Your task to perform on an android device: turn off priority inbox in the gmail app Image 0: 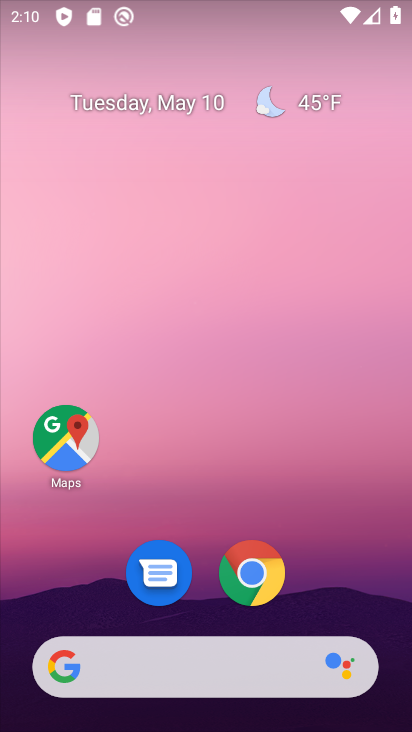
Step 0: drag from (201, 616) to (247, 225)
Your task to perform on an android device: turn off priority inbox in the gmail app Image 1: 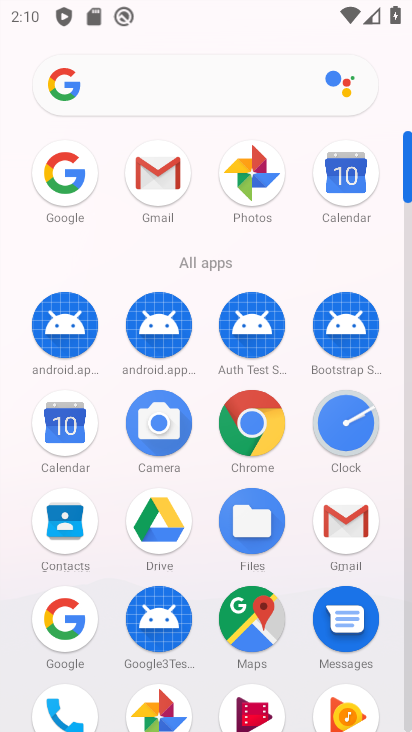
Step 1: click (148, 180)
Your task to perform on an android device: turn off priority inbox in the gmail app Image 2: 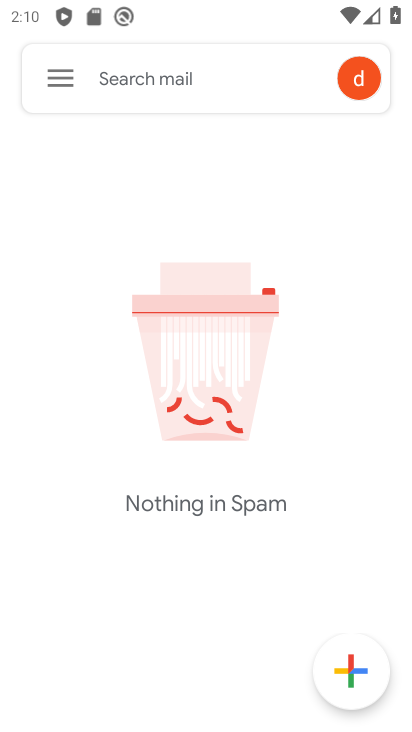
Step 2: click (65, 87)
Your task to perform on an android device: turn off priority inbox in the gmail app Image 3: 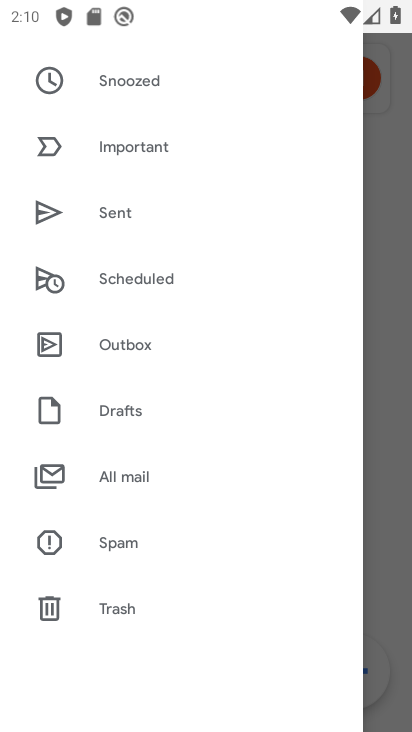
Step 3: drag from (145, 582) to (171, 258)
Your task to perform on an android device: turn off priority inbox in the gmail app Image 4: 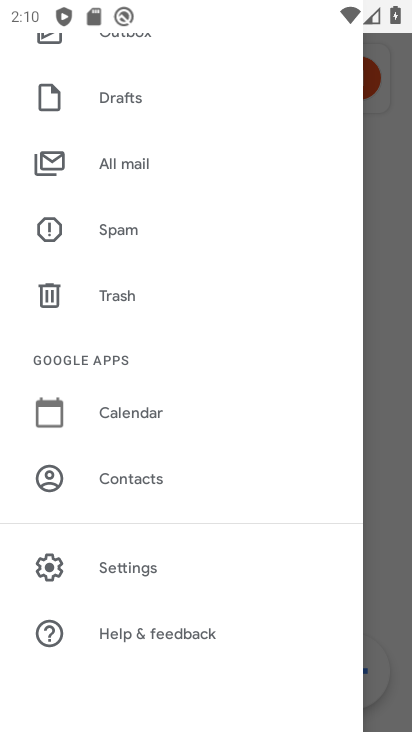
Step 4: click (96, 562)
Your task to perform on an android device: turn off priority inbox in the gmail app Image 5: 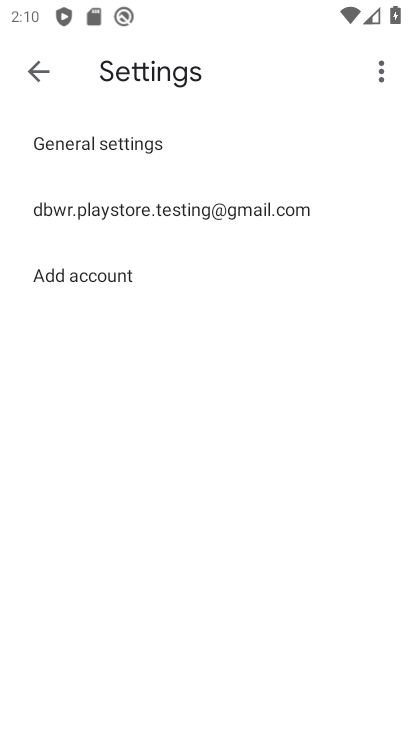
Step 5: click (160, 221)
Your task to perform on an android device: turn off priority inbox in the gmail app Image 6: 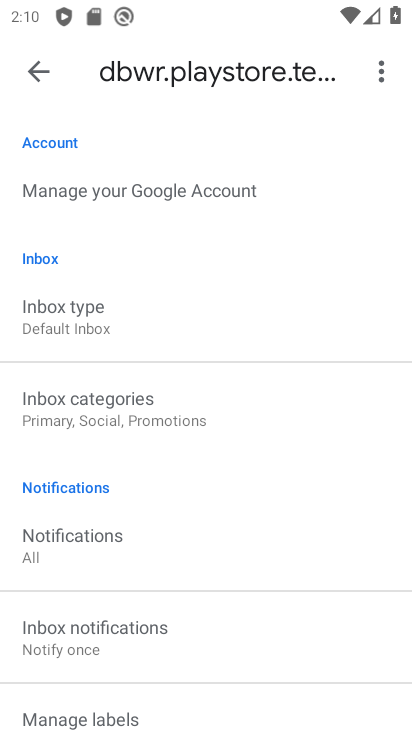
Step 6: drag from (181, 597) to (193, 429)
Your task to perform on an android device: turn off priority inbox in the gmail app Image 7: 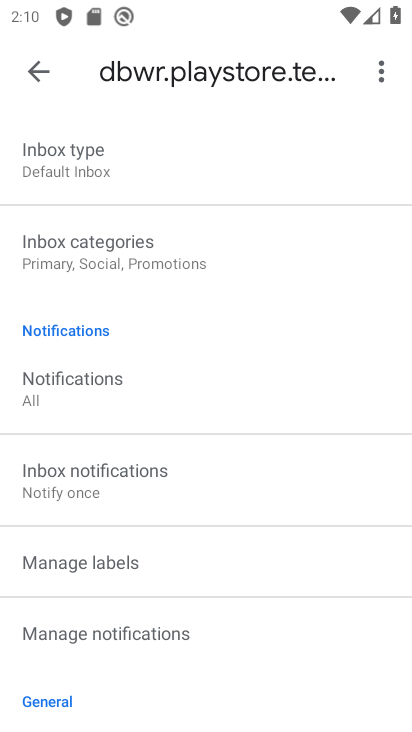
Step 7: click (132, 172)
Your task to perform on an android device: turn off priority inbox in the gmail app Image 8: 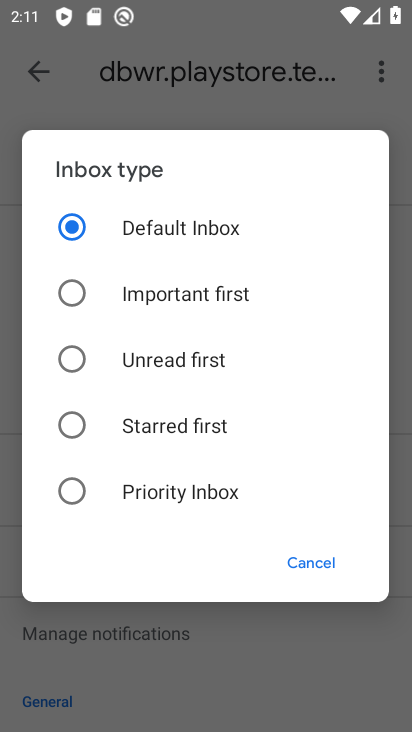
Step 8: task complete